Your task to perform on an android device: Open the calendar app, open the side menu, and click the "Day" option Image 0: 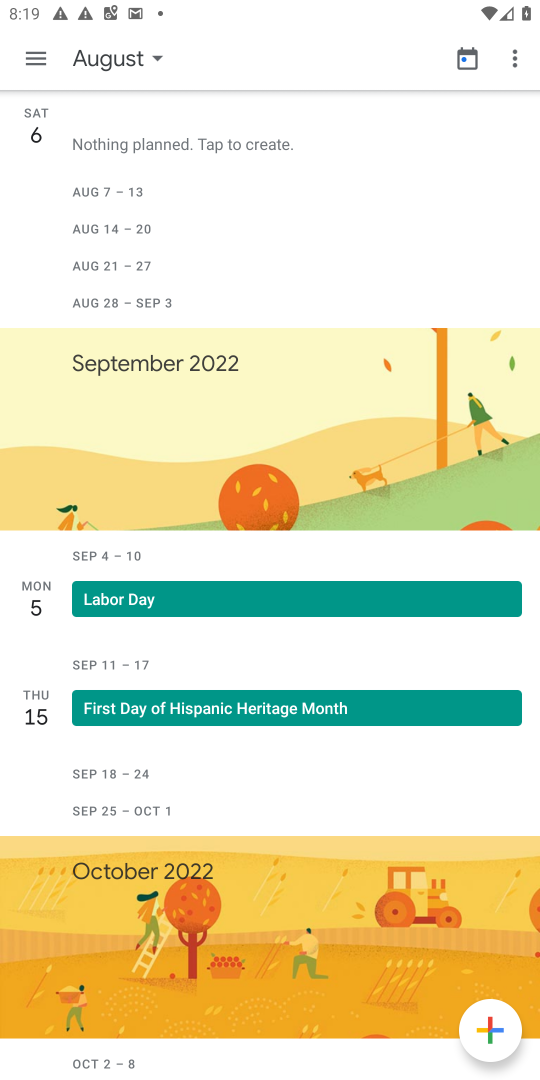
Step 0: click (33, 60)
Your task to perform on an android device: Open the calendar app, open the side menu, and click the "Day" option Image 1: 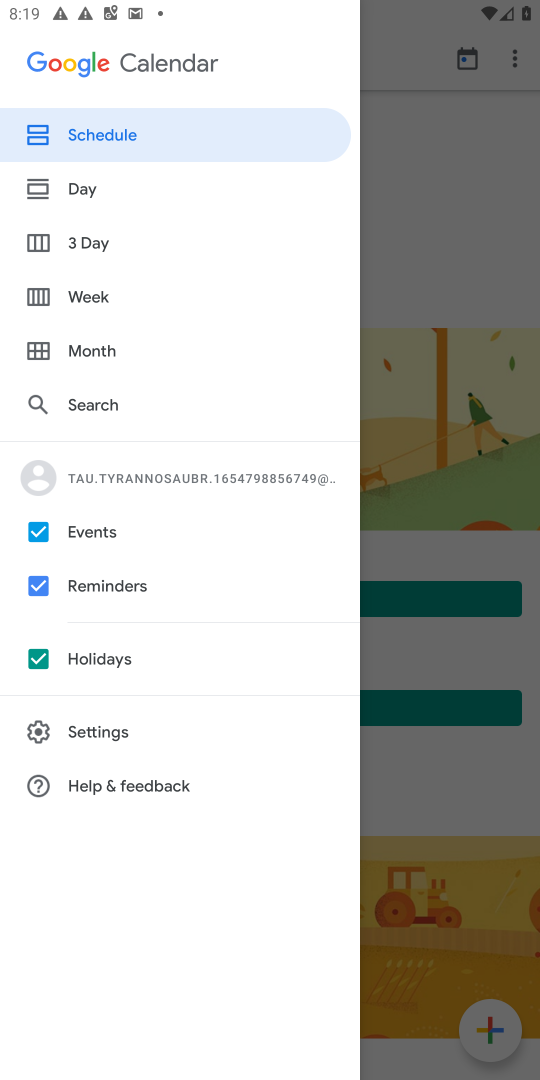
Step 1: click (58, 192)
Your task to perform on an android device: Open the calendar app, open the side menu, and click the "Day" option Image 2: 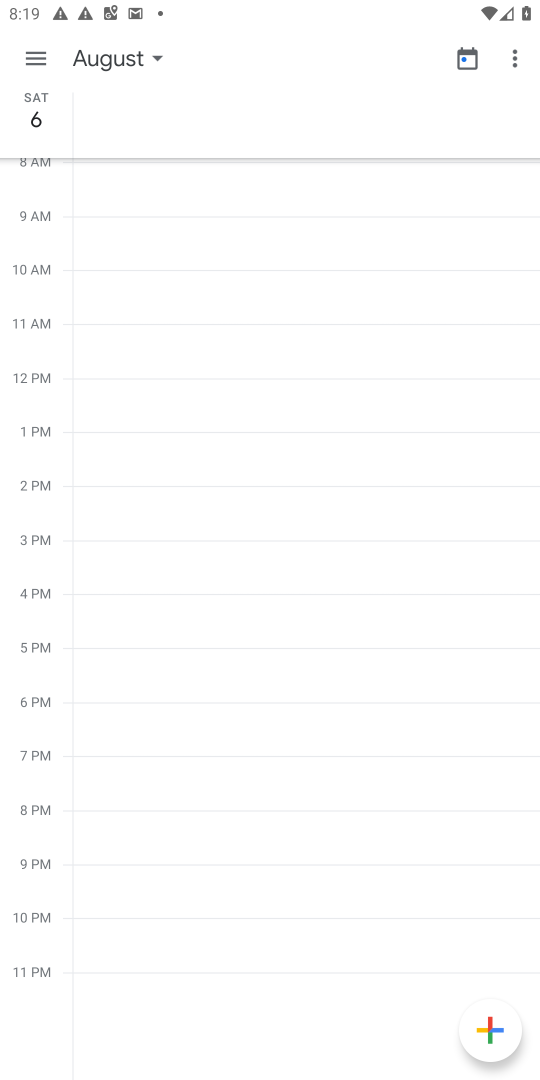
Step 2: task complete